Your task to perform on an android device: What's on my calendar tomorrow? Image 0: 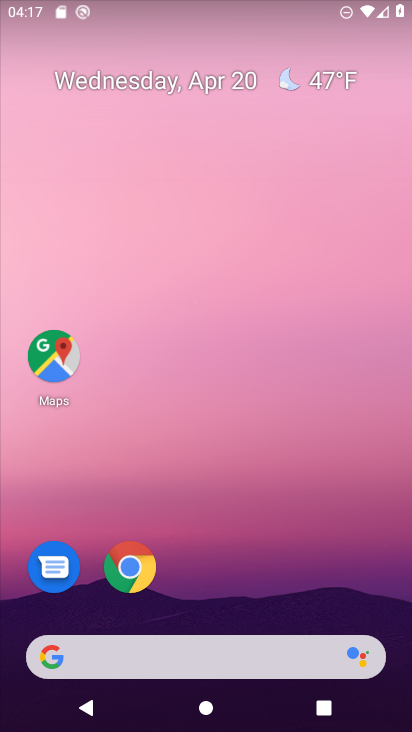
Step 0: click (130, 93)
Your task to perform on an android device: What's on my calendar tomorrow? Image 1: 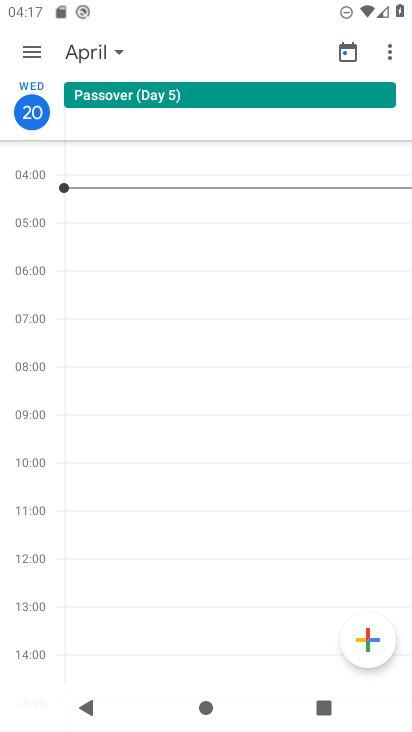
Step 1: click (93, 50)
Your task to perform on an android device: What's on my calendar tomorrow? Image 2: 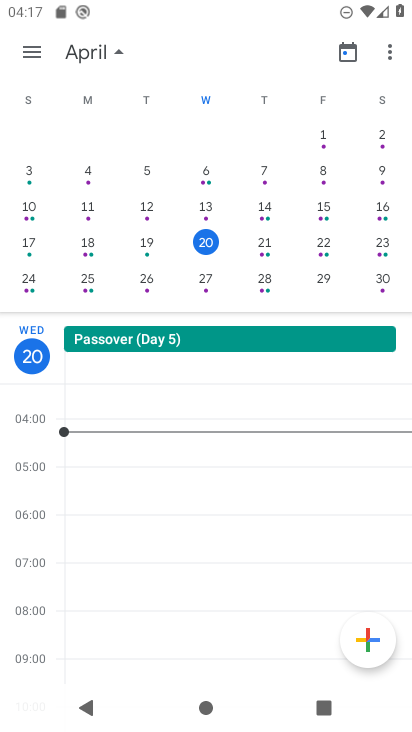
Step 2: click (273, 250)
Your task to perform on an android device: What's on my calendar tomorrow? Image 3: 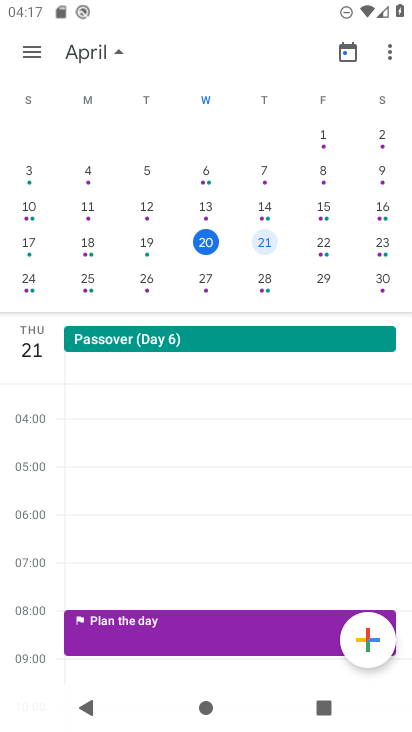
Step 3: task complete